Your task to perform on an android device: Search for the best rated headphones on AliExpress. Image 0: 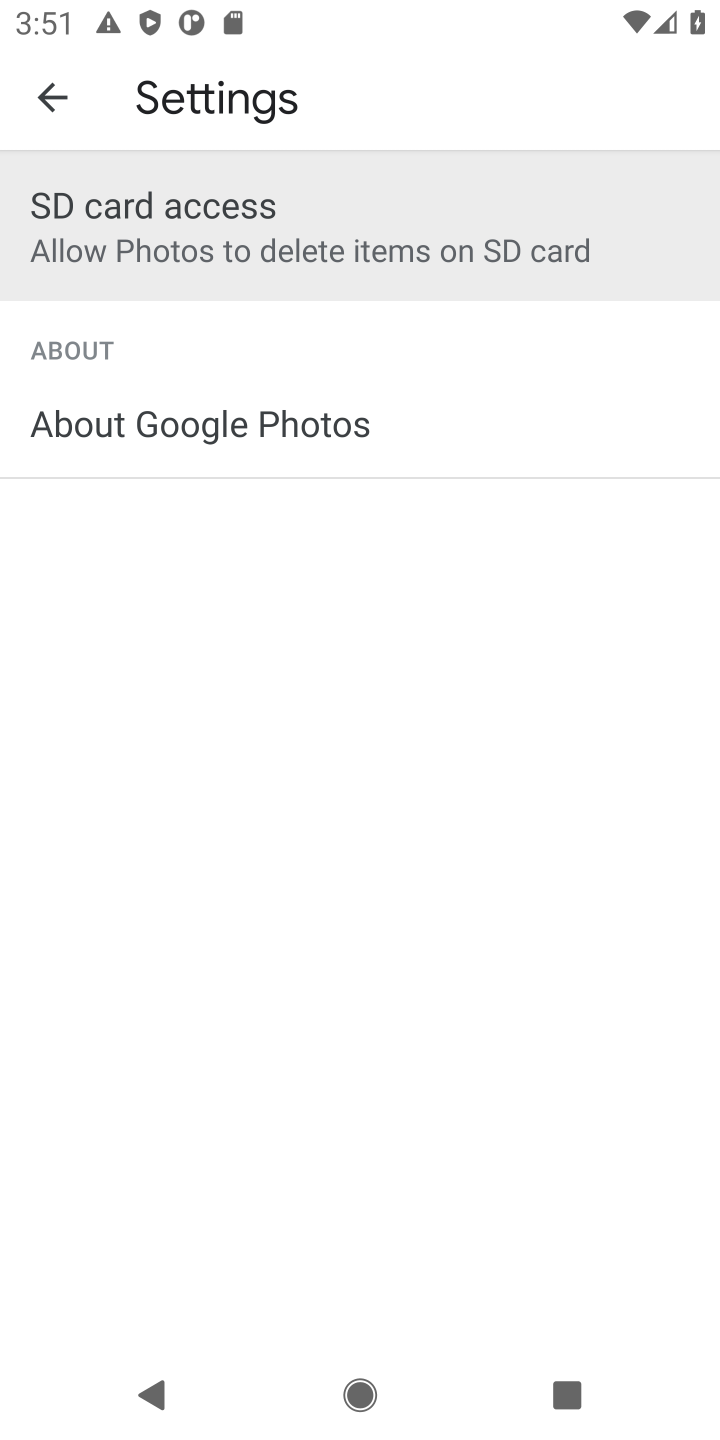
Step 0: press home button
Your task to perform on an android device: Search for the best rated headphones on AliExpress. Image 1: 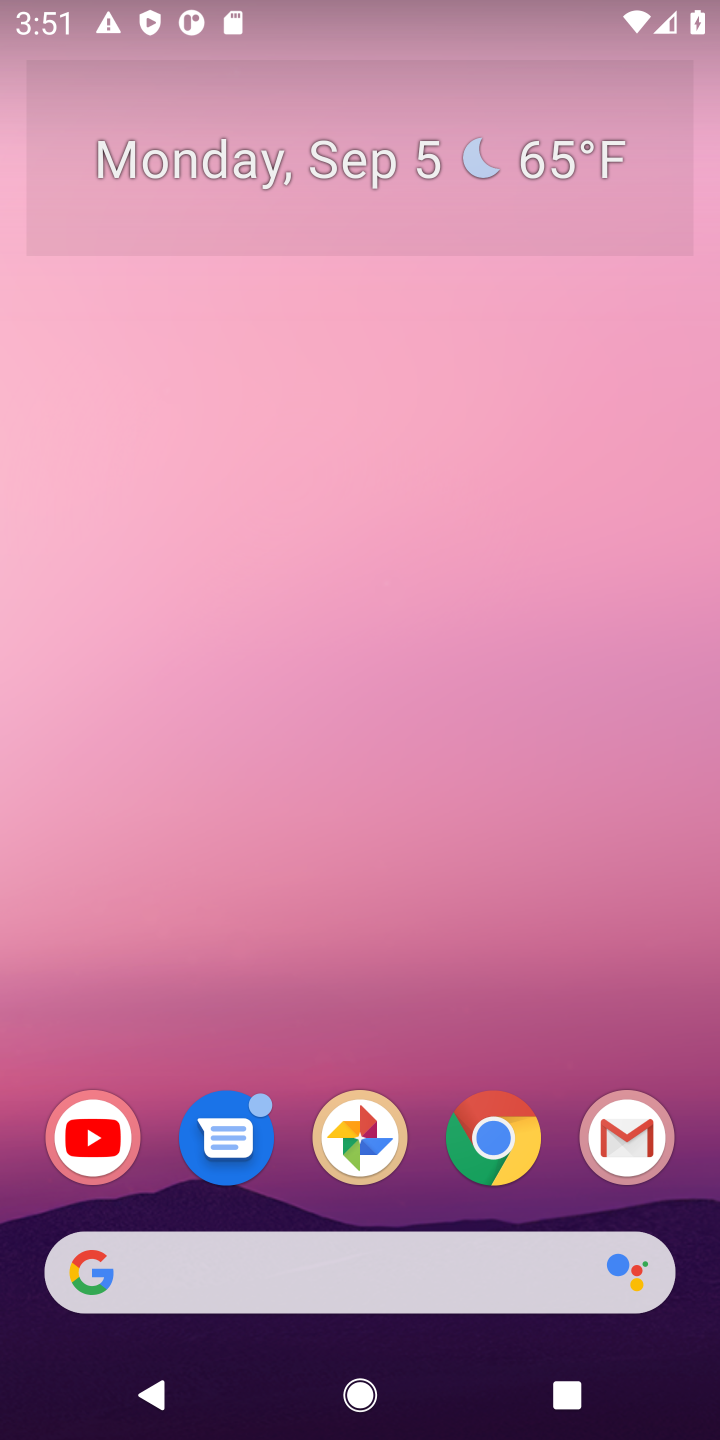
Step 1: click (483, 1134)
Your task to perform on an android device: Search for the best rated headphones on AliExpress. Image 2: 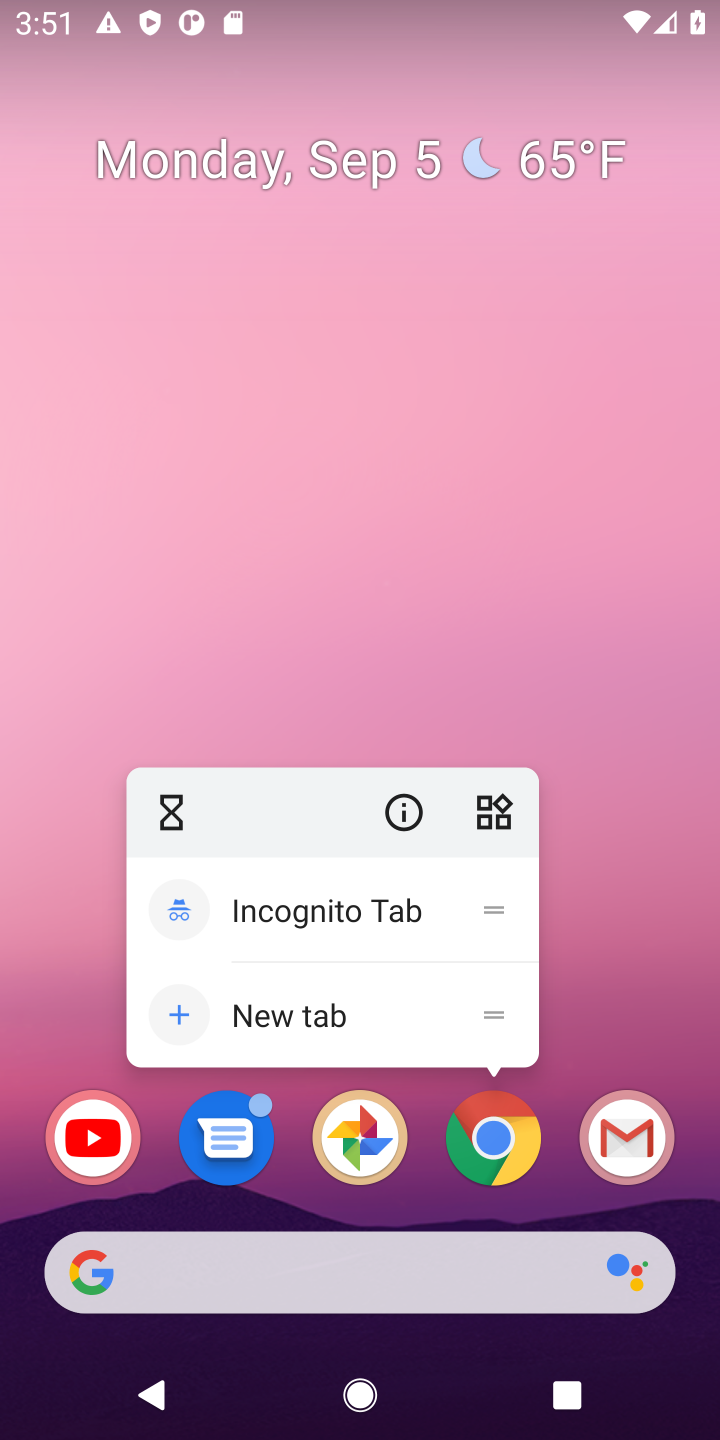
Step 2: click (495, 1158)
Your task to perform on an android device: Search for the best rated headphones on AliExpress. Image 3: 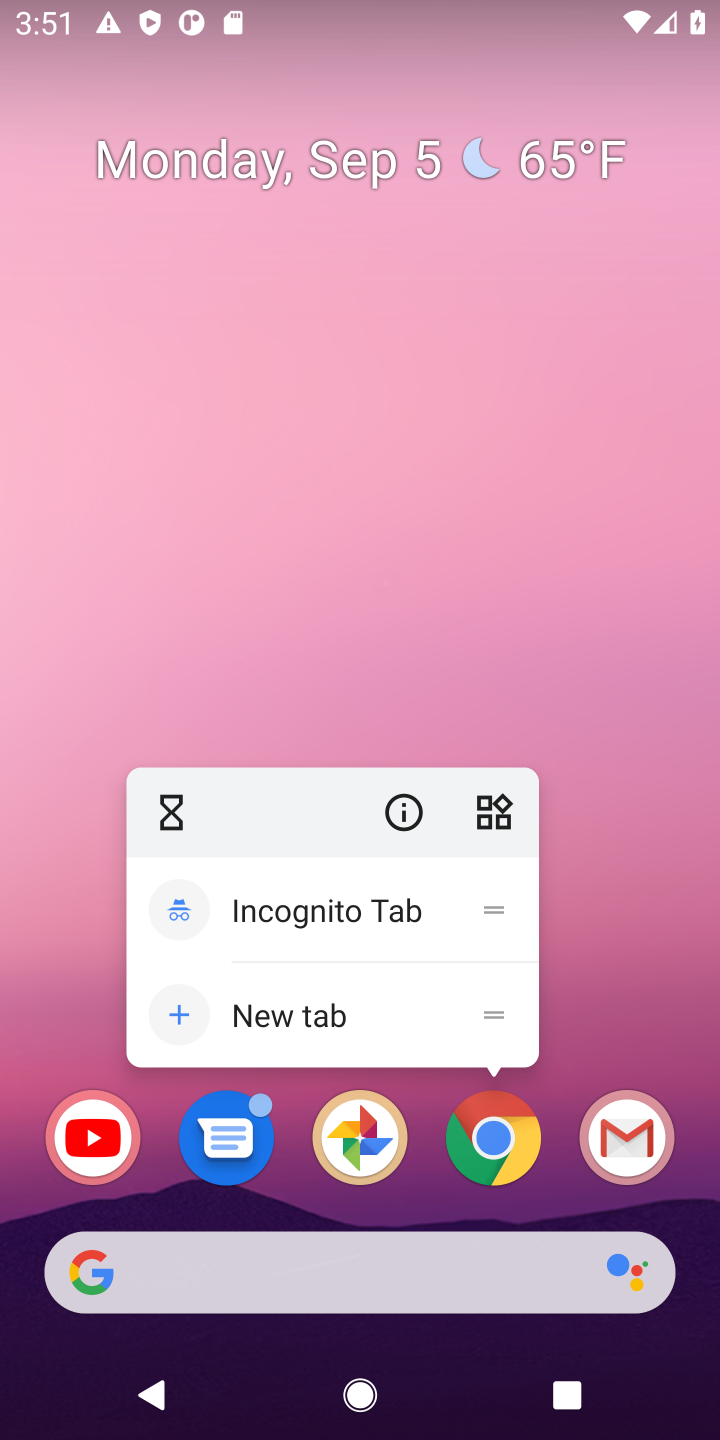
Step 3: click (495, 1158)
Your task to perform on an android device: Search for the best rated headphones on AliExpress. Image 4: 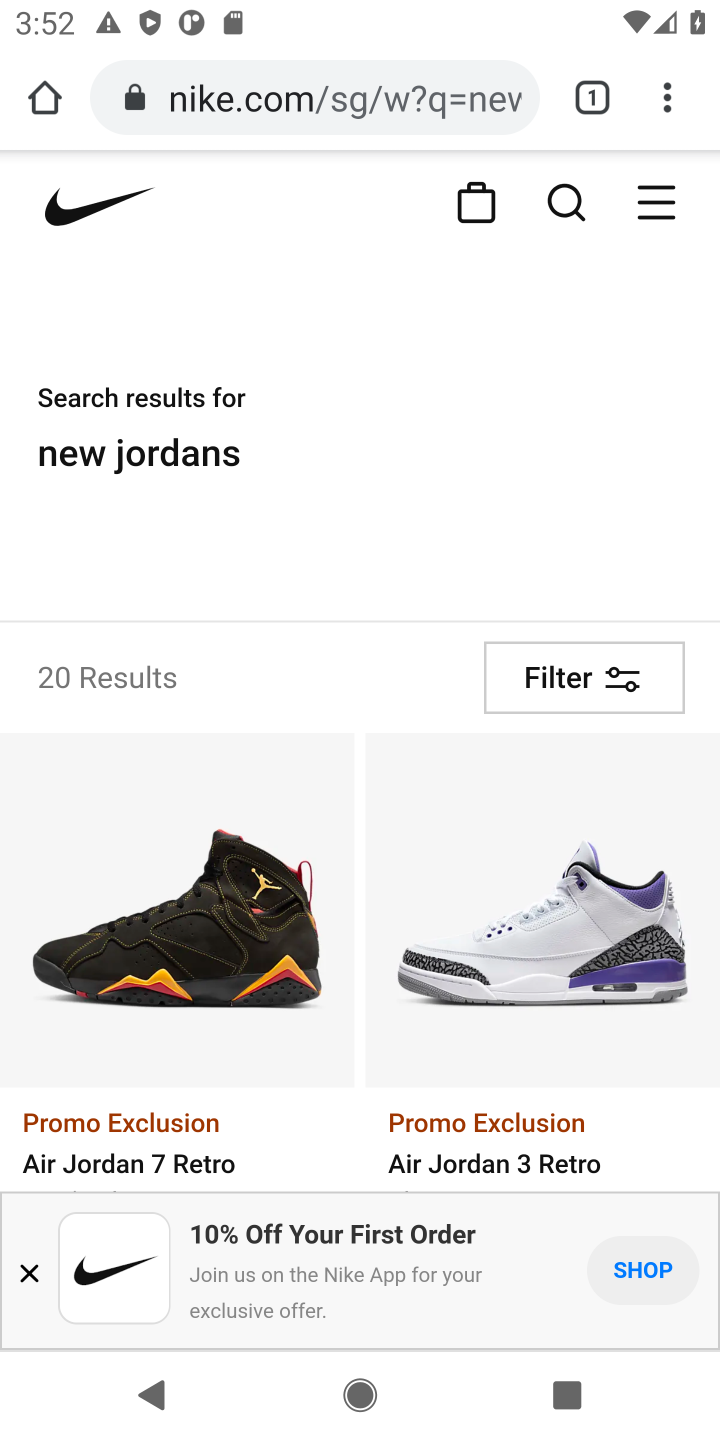
Step 4: click (381, 109)
Your task to perform on an android device: Search for the best rated headphones on AliExpress. Image 5: 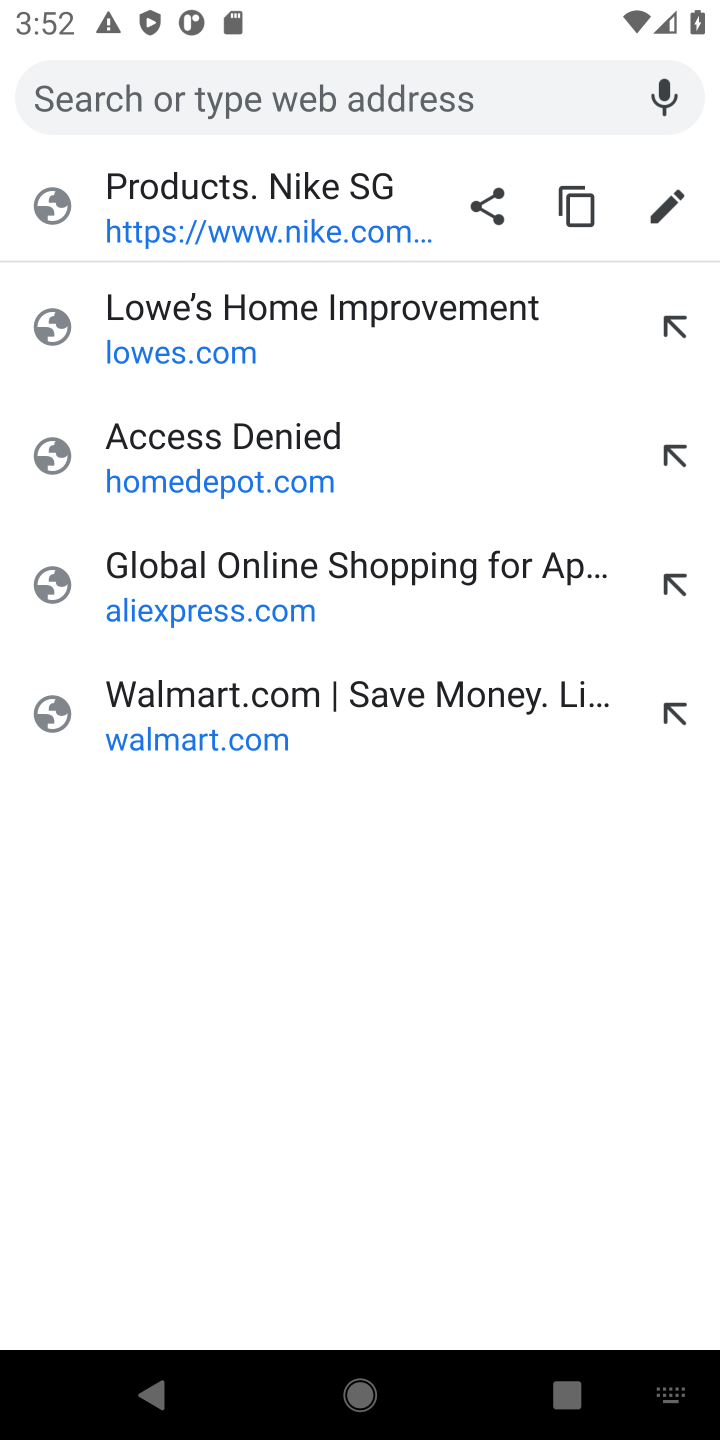
Step 5: type "aliexpress"
Your task to perform on an android device: Search for the best rated headphones on AliExpress. Image 6: 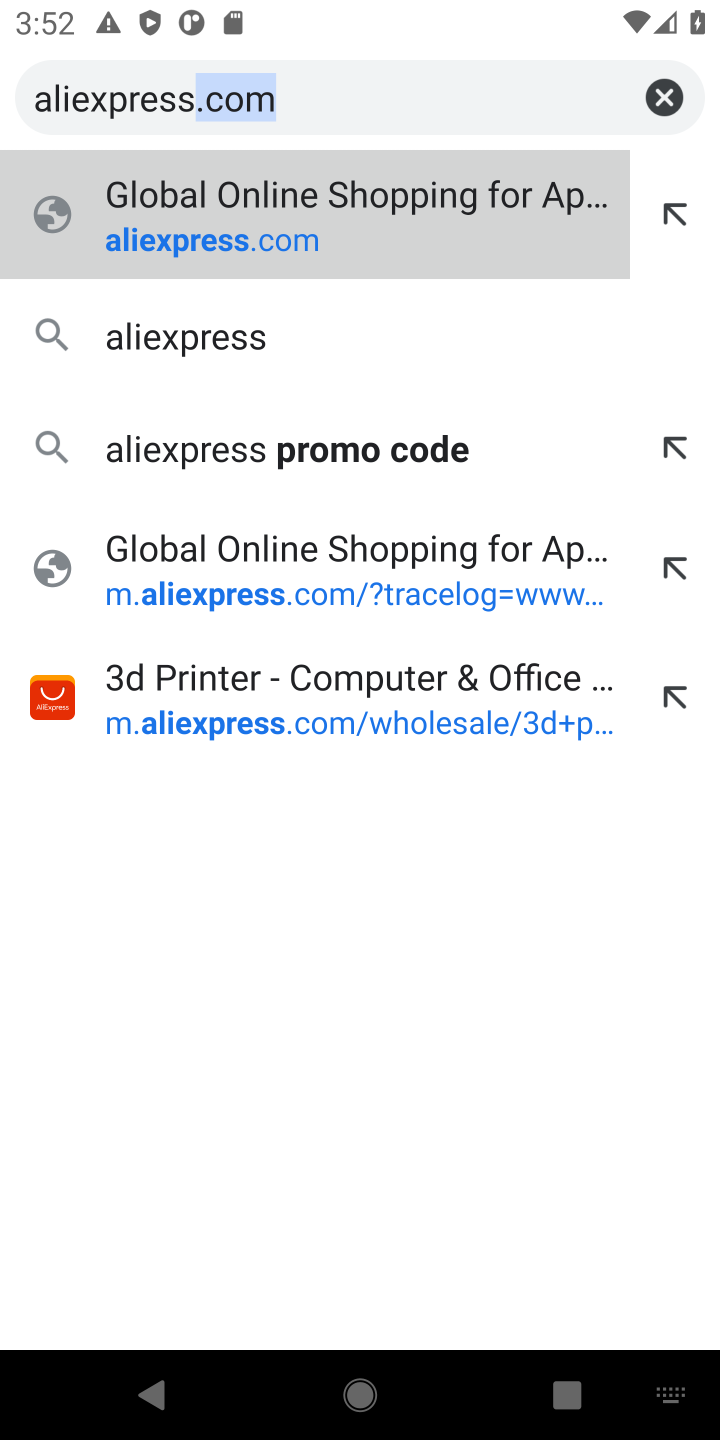
Step 6: click (335, 221)
Your task to perform on an android device: Search for the best rated headphones on AliExpress. Image 7: 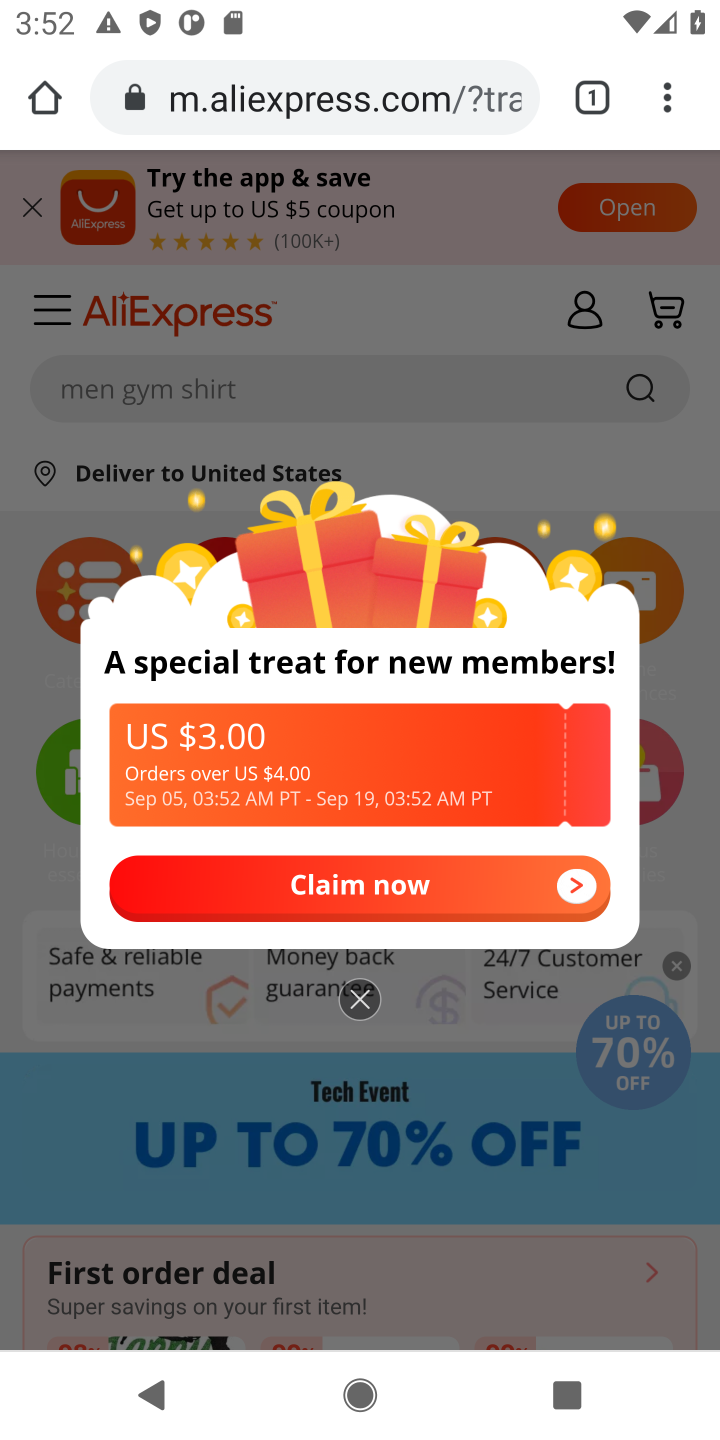
Step 7: click (359, 1007)
Your task to perform on an android device: Search for the best rated headphones on AliExpress. Image 8: 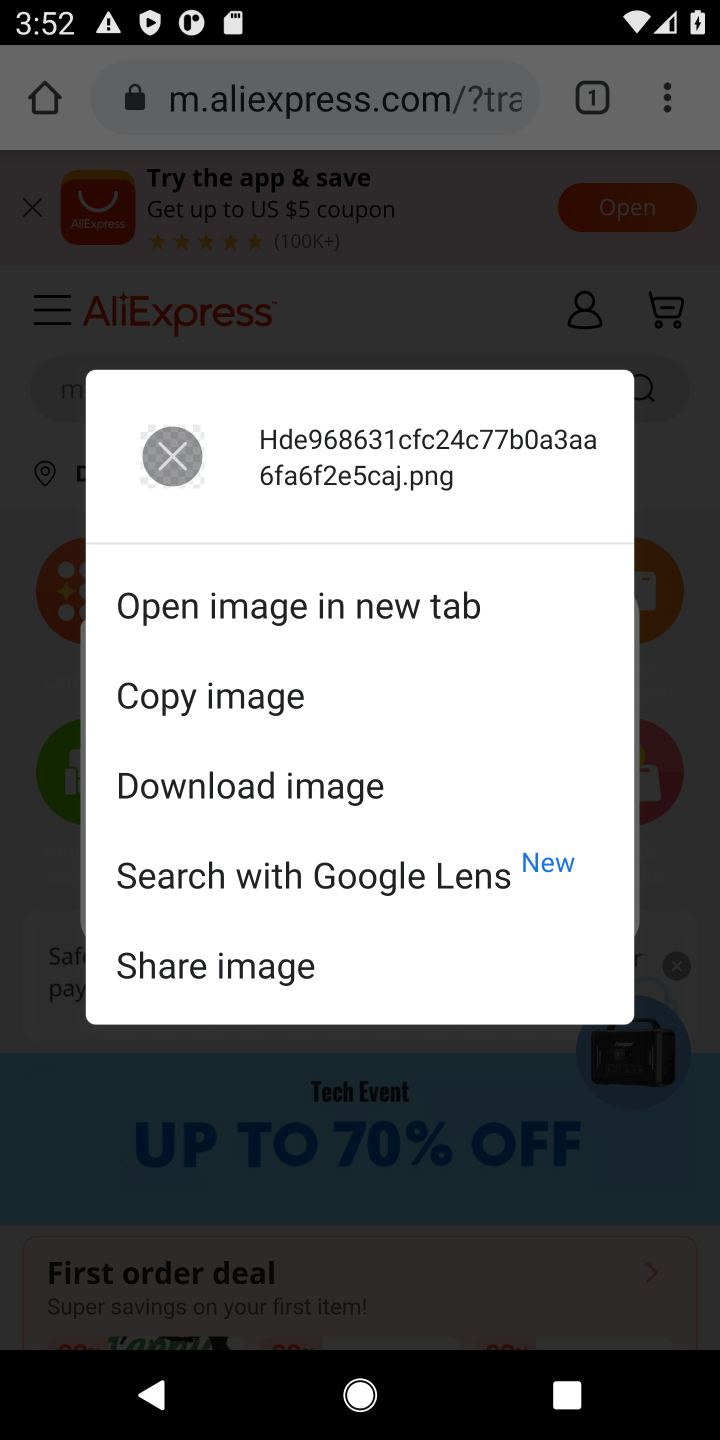
Step 8: click (544, 1219)
Your task to perform on an android device: Search for the best rated headphones on AliExpress. Image 9: 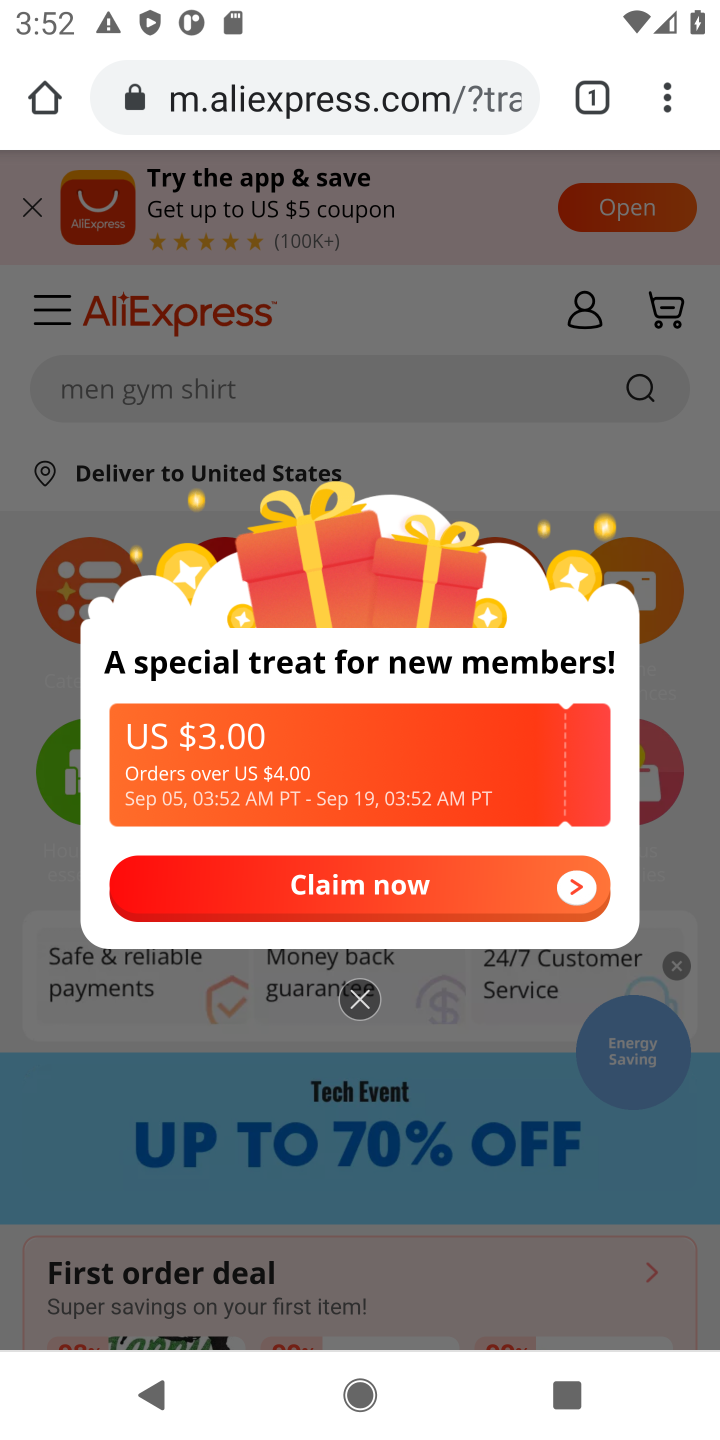
Step 9: click (365, 1006)
Your task to perform on an android device: Search for the best rated headphones on AliExpress. Image 10: 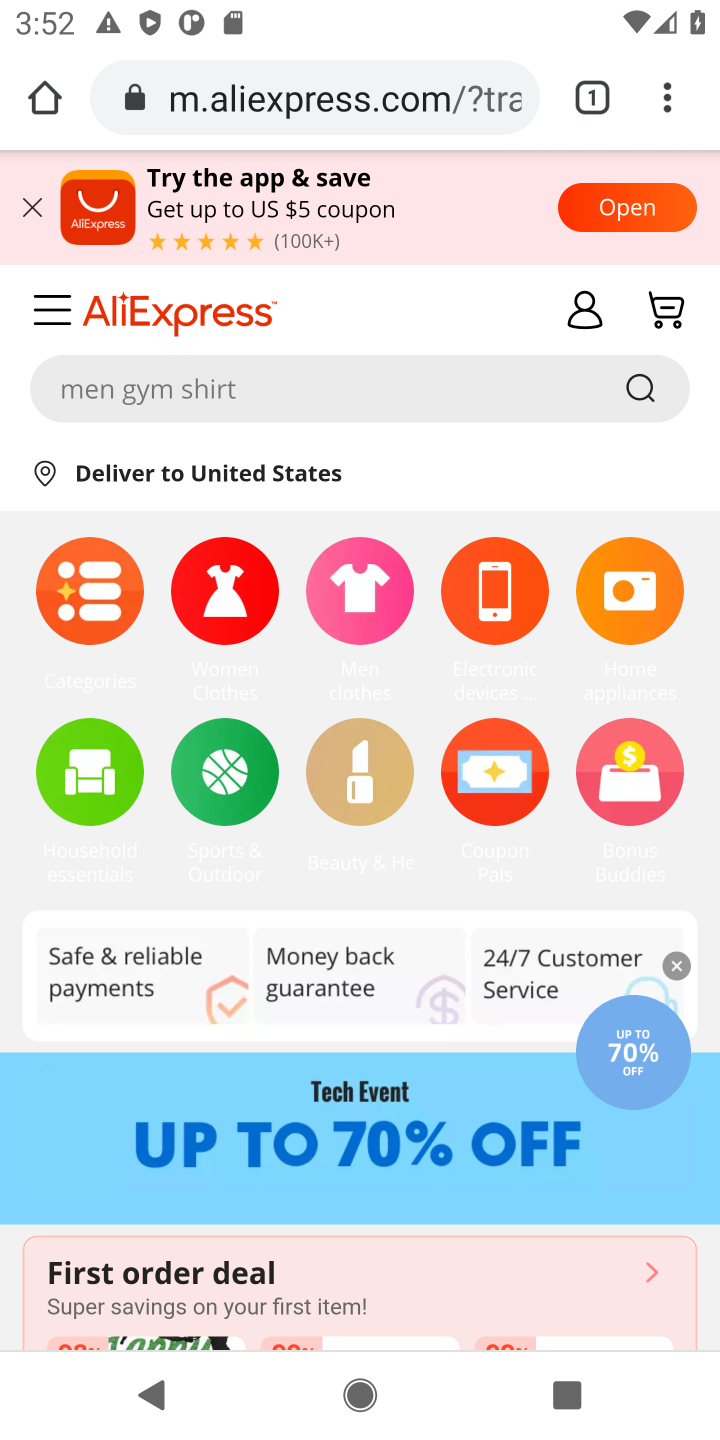
Step 10: click (247, 380)
Your task to perform on an android device: Search for the best rated headphones on AliExpress. Image 11: 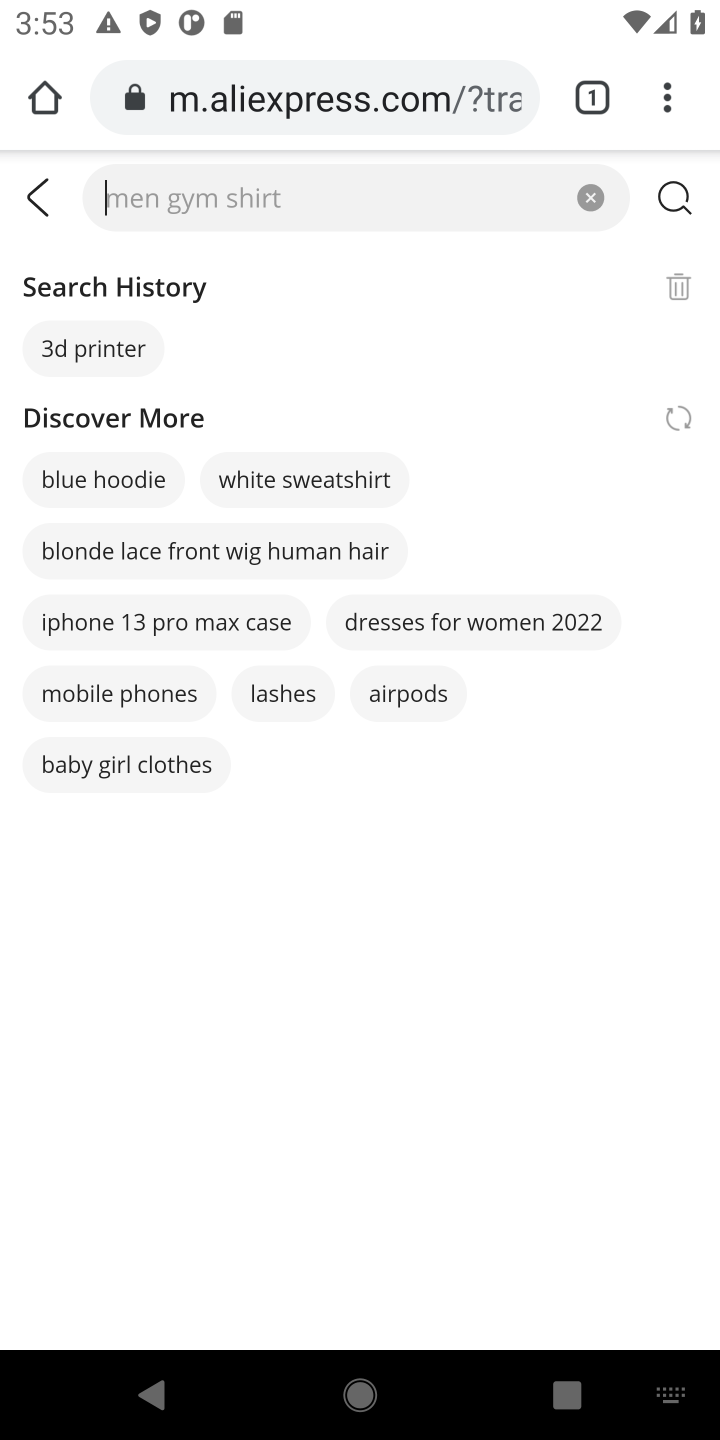
Step 11: type "best rated headphones"
Your task to perform on an android device: Search for the best rated headphones on AliExpress. Image 12: 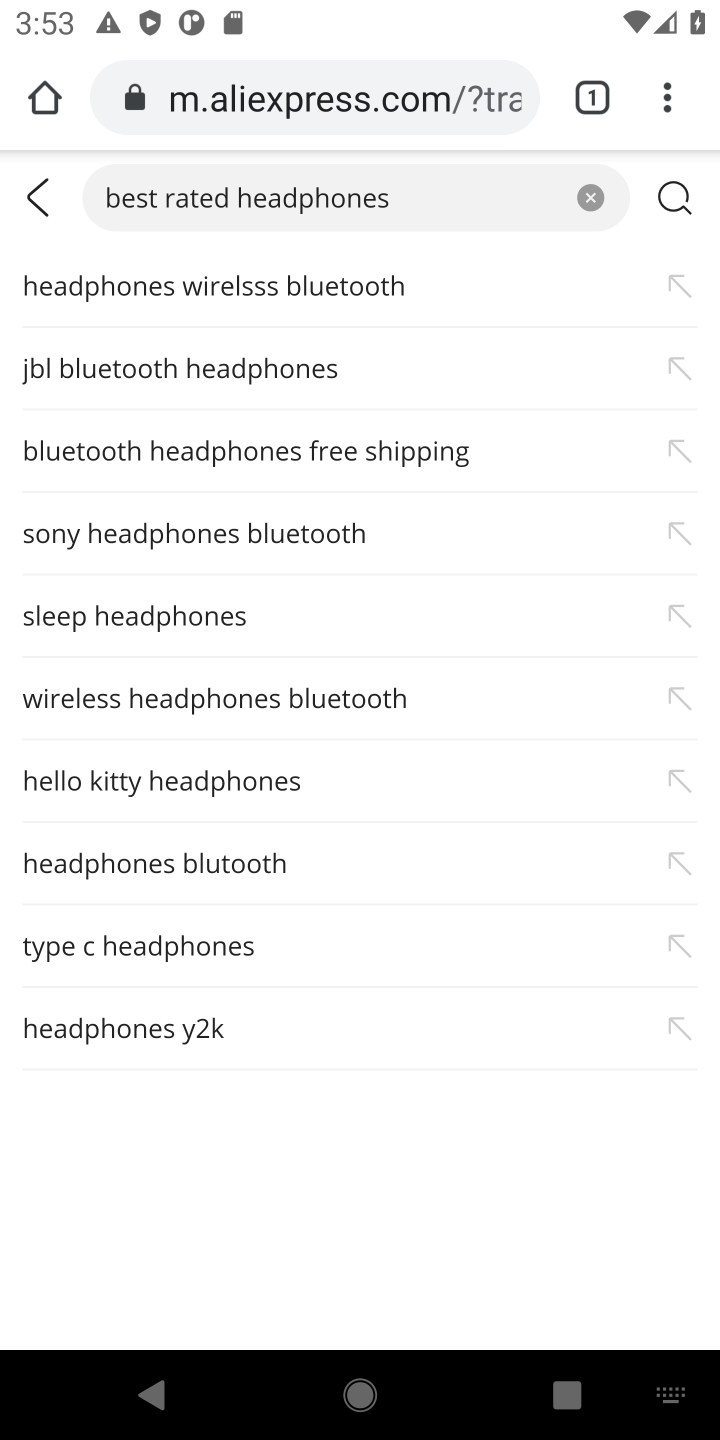
Step 12: click (681, 205)
Your task to perform on an android device: Search for the best rated headphones on AliExpress. Image 13: 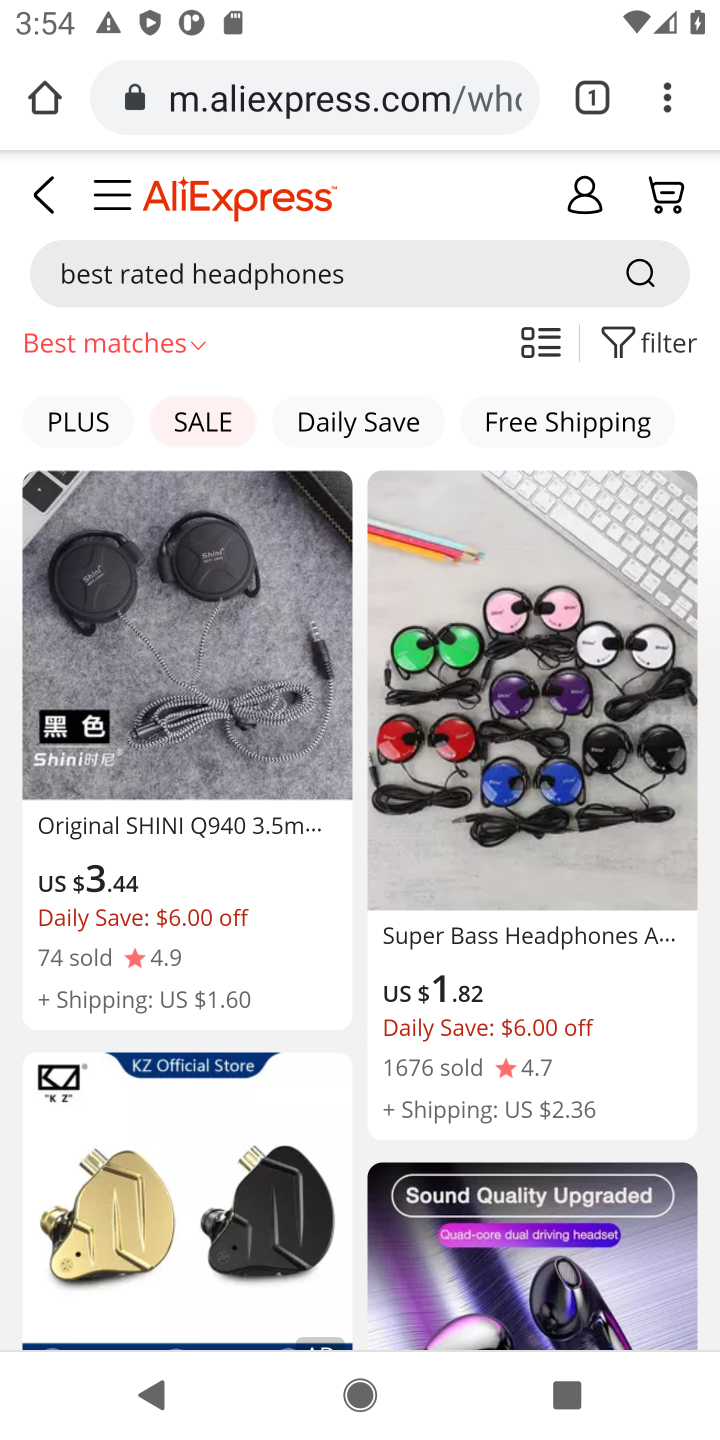
Step 13: task complete